Your task to perform on an android device: Open the phone app and click the voicemail tab. Image 0: 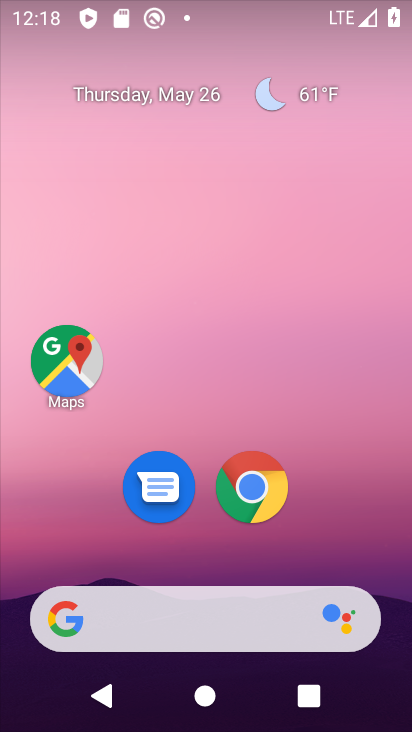
Step 0: drag from (325, 678) to (203, 274)
Your task to perform on an android device: Open the phone app and click the voicemail tab. Image 1: 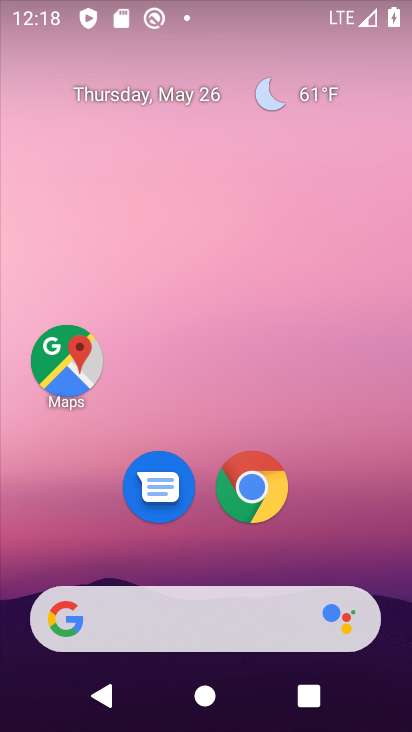
Step 1: drag from (353, 614) to (282, 92)
Your task to perform on an android device: Open the phone app and click the voicemail tab. Image 2: 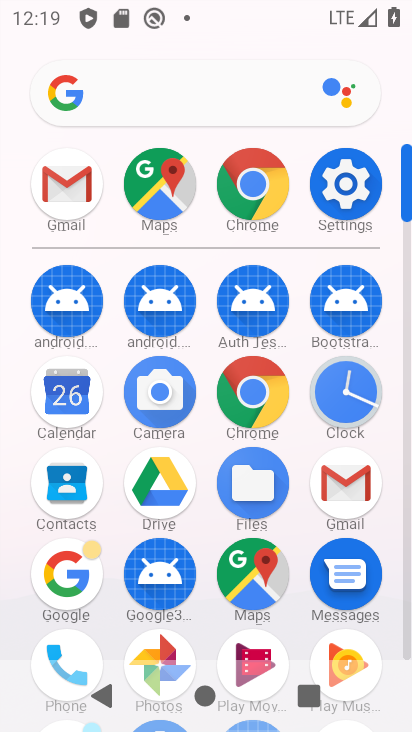
Step 2: click (69, 672)
Your task to perform on an android device: Open the phone app and click the voicemail tab. Image 3: 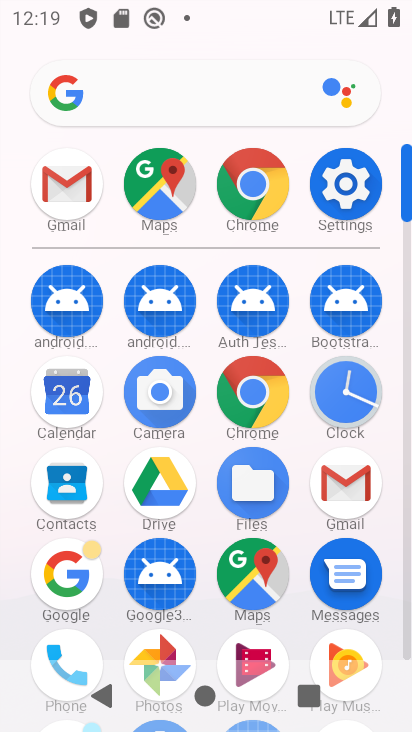
Step 3: click (71, 669)
Your task to perform on an android device: Open the phone app and click the voicemail tab. Image 4: 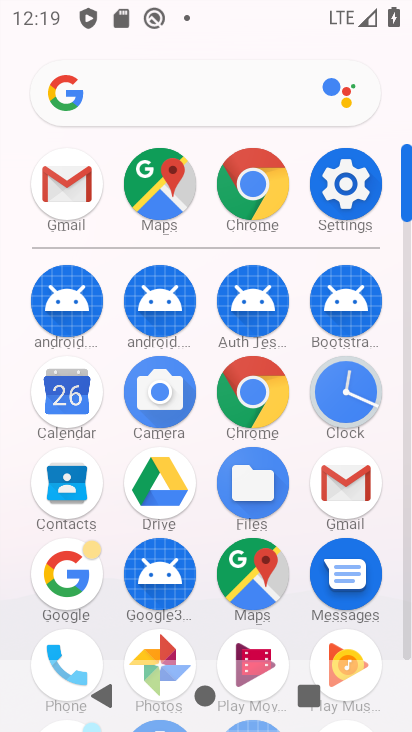
Step 4: click (71, 665)
Your task to perform on an android device: Open the phone app and click the voicemail tab. Image 5: 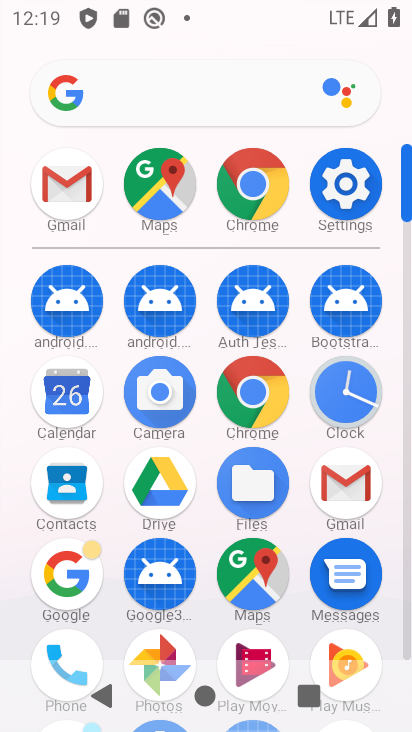
Step 5: click (73, 655)
Your task to perform on an android device: Open the phone app and click the voicemail tab. Image 6: 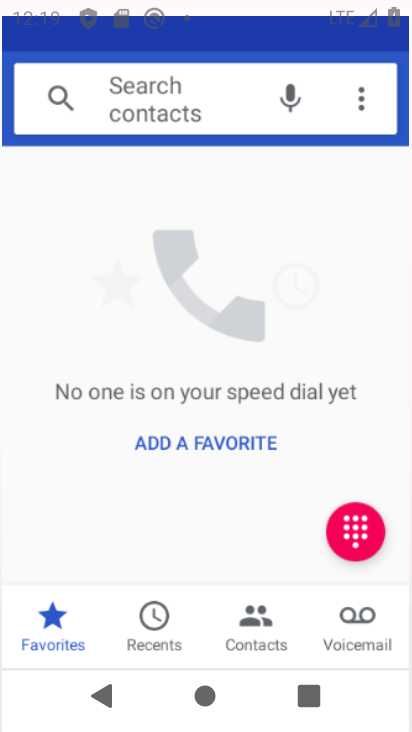
Step 6: click (79, 637)
Your task to perform on an android device: Open the phone app and click the voicemail tab. Image 7: 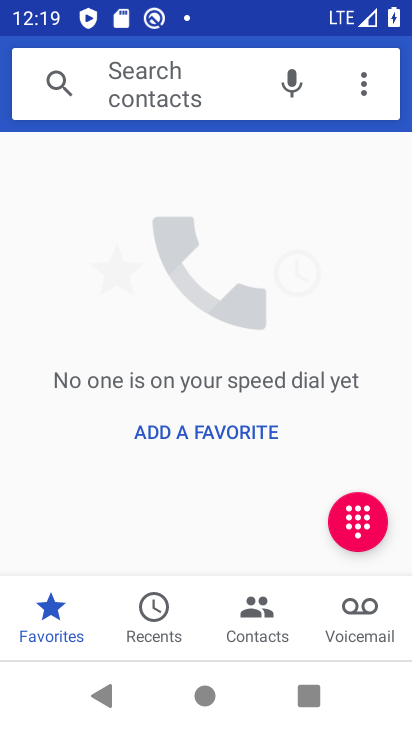
Step 7: click (360, 612)
Your task to perform on an android device: Open the phone app and click the voicemail tab. Image 8: 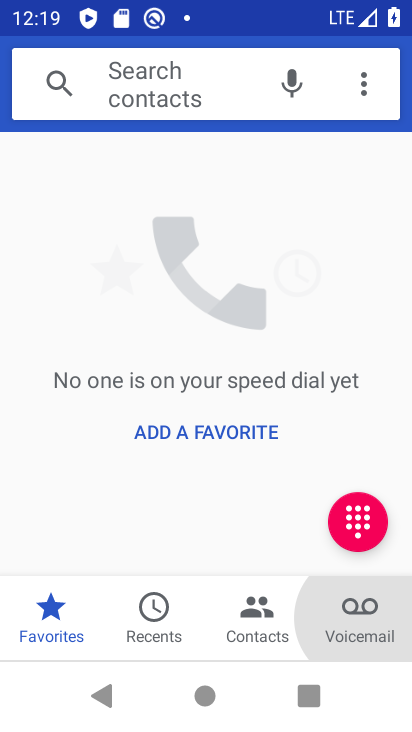
Step 8: click (367, 634)
Your task to perform on an android device: Open the phone app and click the voicemail tab. Image 9: 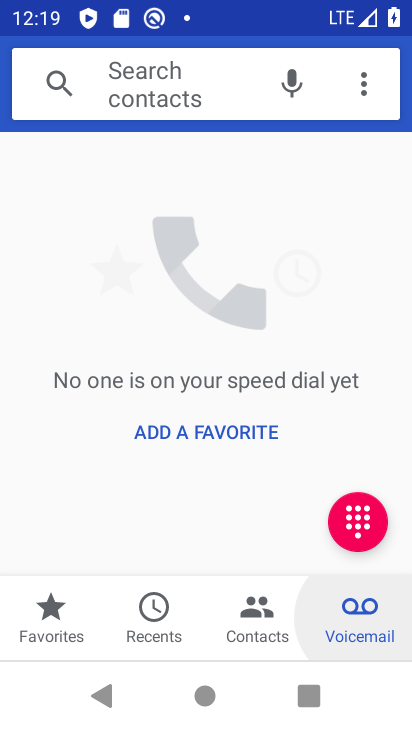
Step 9: click (368, 632)
Your task to perform on an android device: Open the phone app and click the voicemail tab. Image 10: 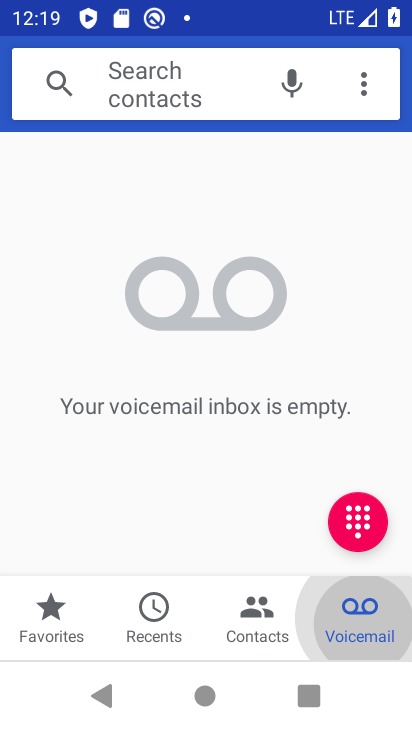
Step 10: click (368, 626)
Your task to perform on an android device: Open the phone app and click the voicemail tab. Image 11: 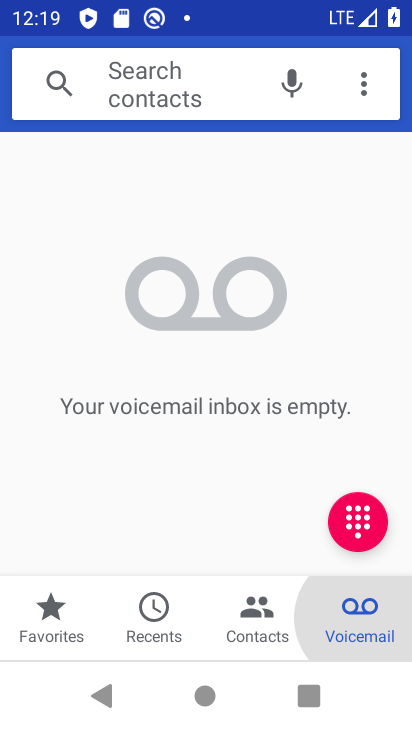
Step 11: click (368, 625)
Your task to perform on an android device: Open the phone app and click the voicemail tab. Image 12: 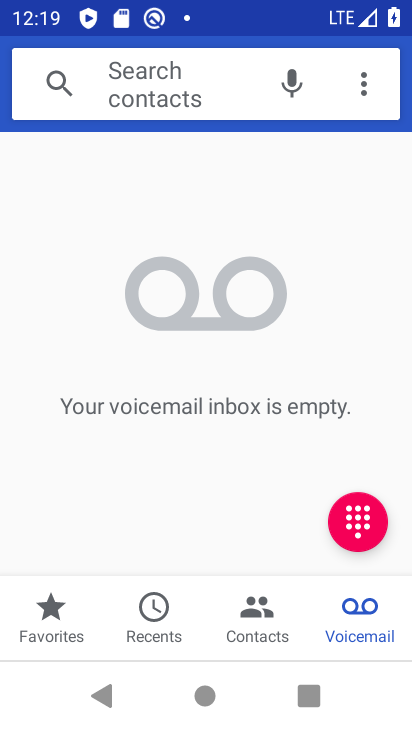
Step 12: click (344, 628)
Your task to perform on an android device: Open the phone app and click the voicemail tab. Image 13: 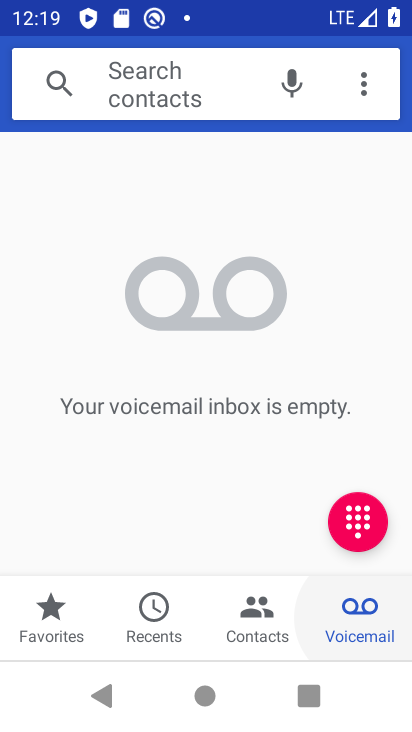
Step 13: click (352, 626)
Your task to perform on an android device: Open the phone app and click the voicemail tab. Image 14: 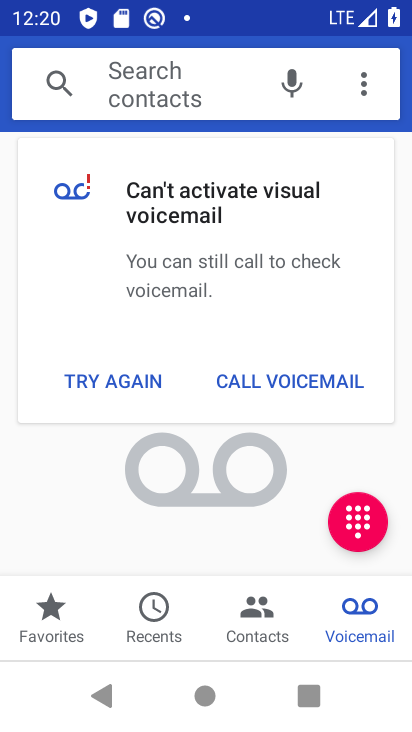
Step 14: click (360, 625)
Your task to perform on an android device: Open the phone app and click the voicemail tab. Image 15: 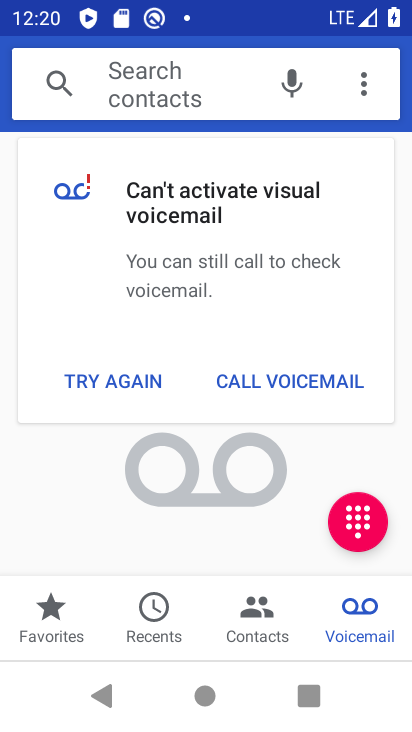
Step 15: press back button
Your task to perform on an android device: Open the phone app and click the voicemail tab. Image 16: 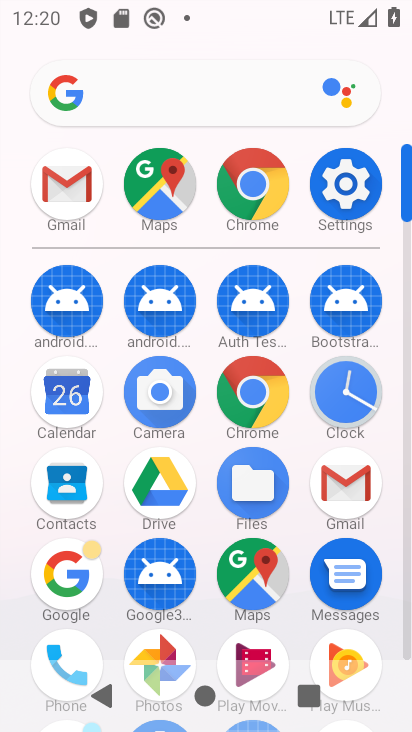
Step 16: press home button
Your task to perform on an android device: Open the phone app and click the voicemail tab. Image 17: 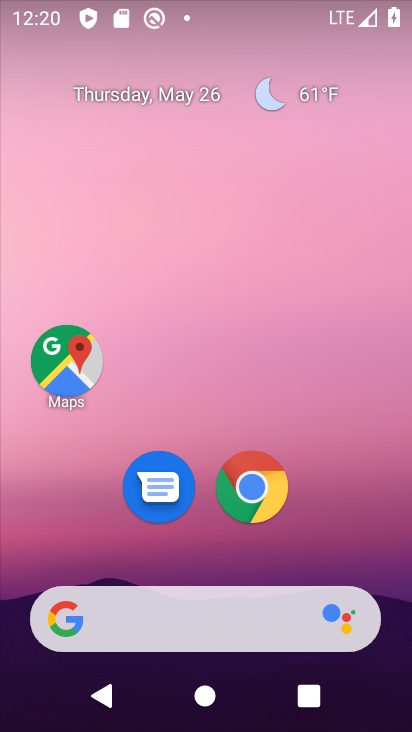
Step 17: drag from (266, 675) to (174, 71)
Your task to perform on an android device: Open the phone app and click the voicemail tab. Image 18: 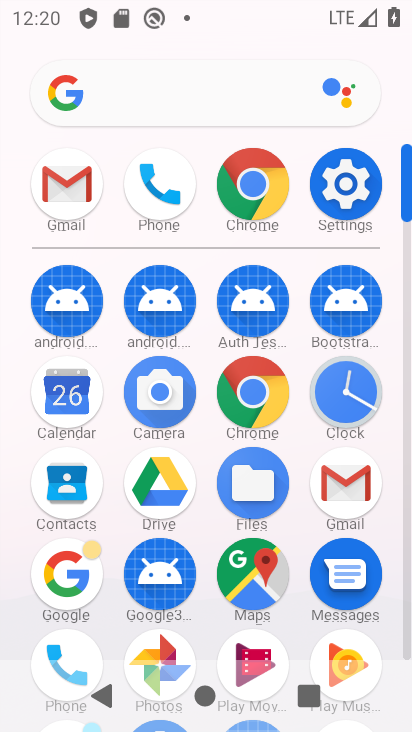
Step 18: click (66, 645)
Your task to perform on an android device: Open the phone app and click the voicemail tab. Image 19: 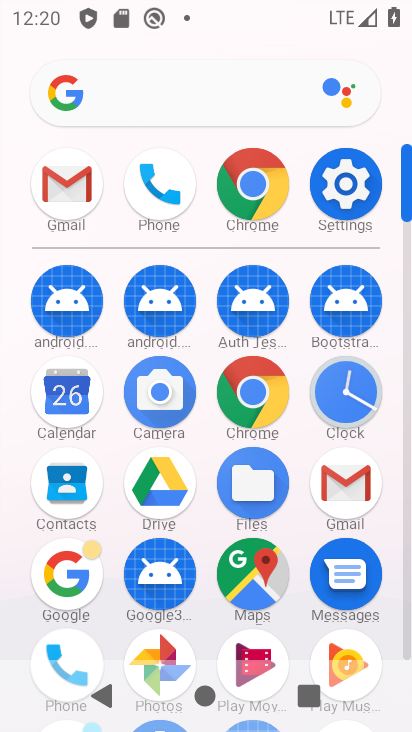
Step 19: click (67, 644)
Your task to perform on an android device: Open the phone app and click the voicemail tab. Image 20: 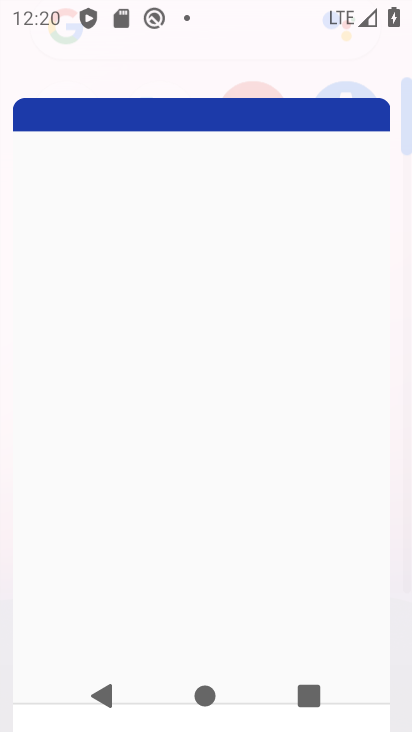
Step 20: click (71, 646)
Your task to perform on an android device: Open the phone app and click the voicemail tab. Image 21: 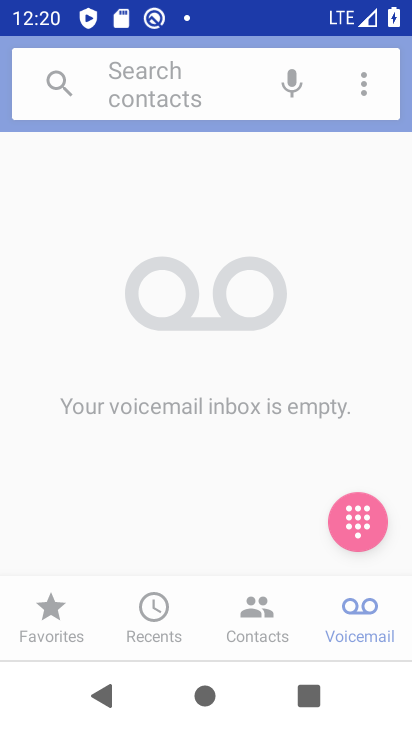
Step 21: click (71, 653)
Your task to perform on an android device: Open the phone app and click the voicemail tab. Image 22: 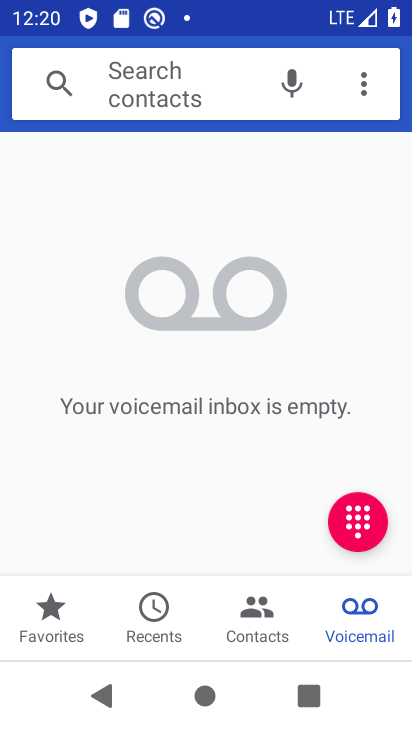
Step 22: click (68, 644)
Your task to perform on an android device: Open the phone app and click the voicemail tab. Image 23: 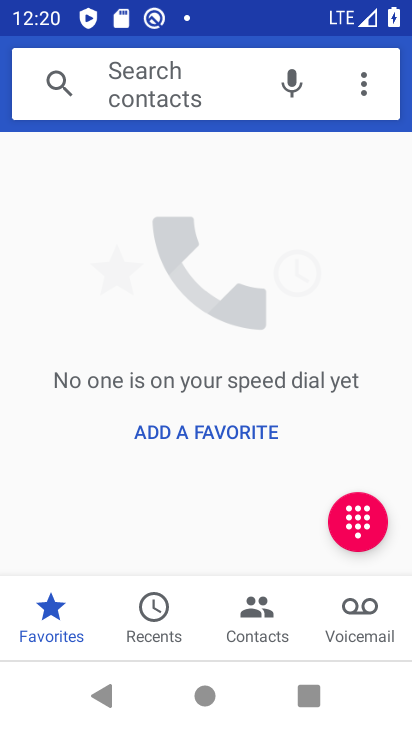
Step 23: click (367, 615)
Your task to perform on an android device: Open the phone app and click the voicemail tab. Image 24: 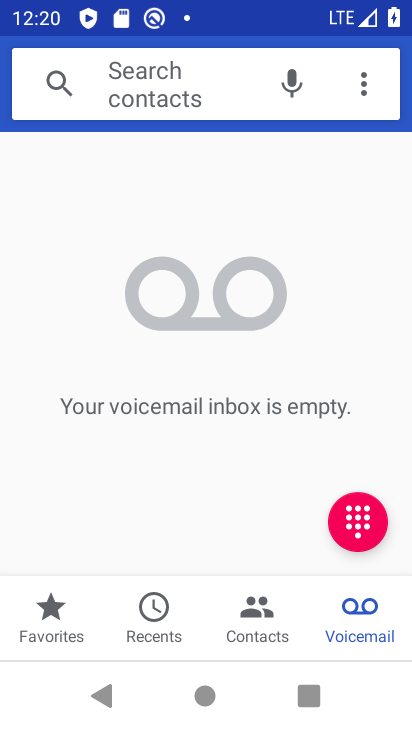
Step 24: drag from (366, 624) to (332, 609)
Your task to perform on an android device: Open the phone app and click the voicemail tab. Image 25: 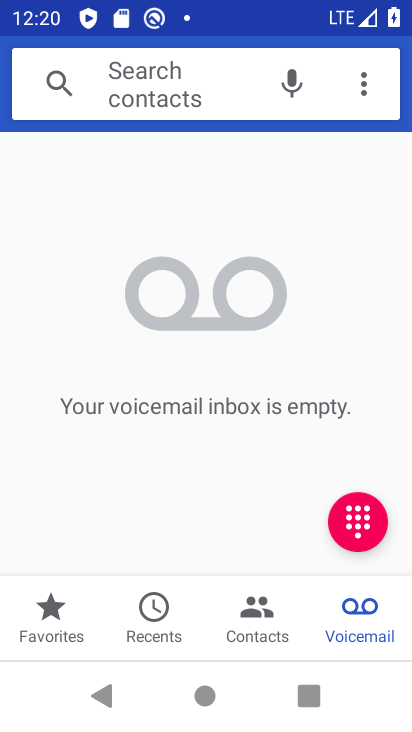
Step 25: click (342, 608)
Your task to perform on an android device: Open the phone app and click the voicemail tab. Image 26: 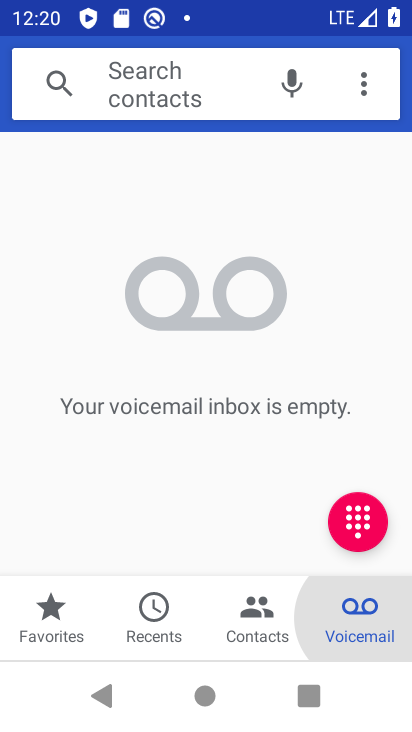
Step 26: click (343, 608)
Your task to perform on an android device: Open the phone app and click the voicemail tab. Image 27: 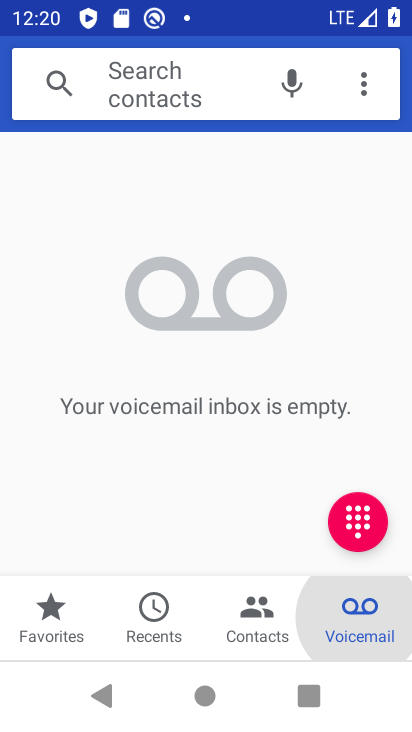
Step 27: click (347, 608)
Your task to perform on an android device: Open the phone app and click the voicemail tab. Image 28: 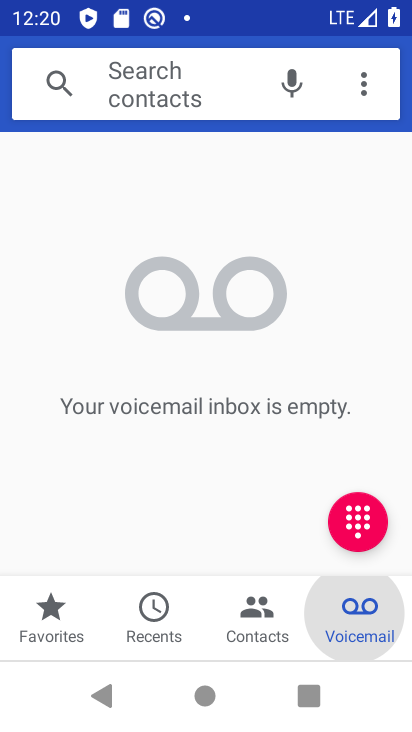
Step 28: click (348, 606)
Your task to perform on an android device: Open the phone app and click the voicemail tab. Image 29: 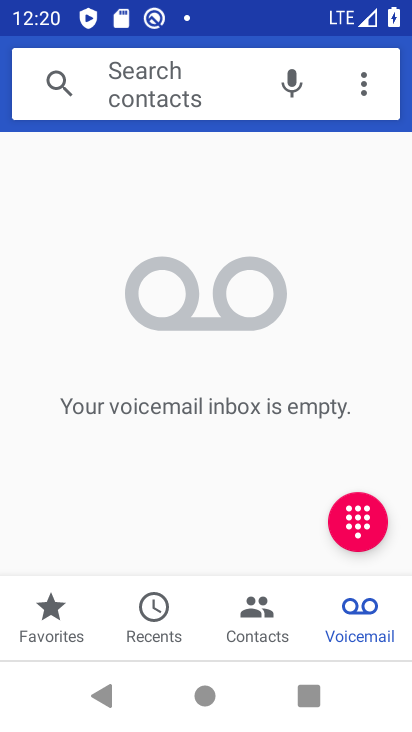
Step 29: task complete